Your task to perform on an android device: Open the stopwatch Image 0: 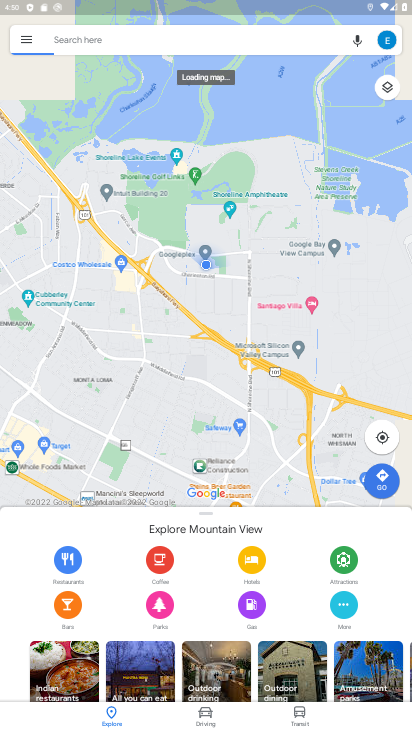
Step 0: press home button
Your task to perform on an android device: Open the stopwatch Image 1: 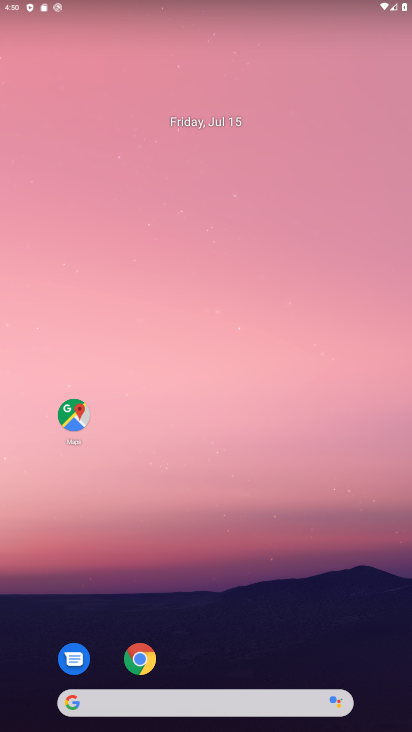
Step 1: drag from (164, 680) to (229, 110)
Your task to perform on an android device: Open the stopwatch Image 2: 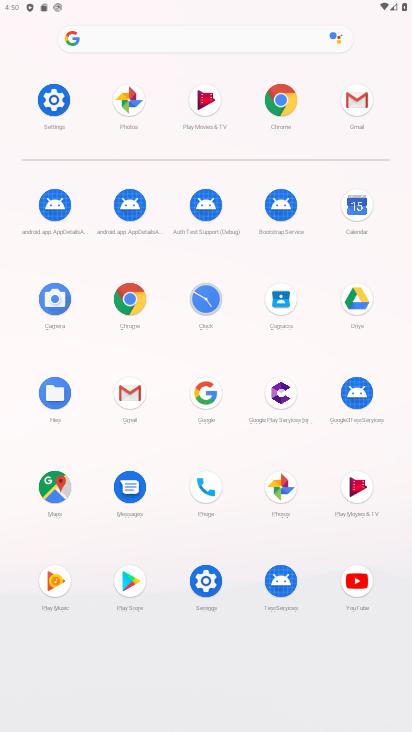
Step 2: click (193, 280)
Your task to perform on an android device: Open the stopwatch Image 3: 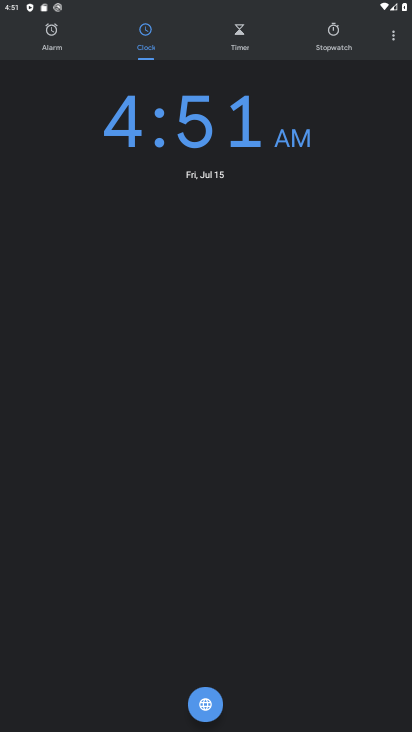
Step 3: click (332, 54)
Your task to perform on an android device: Open the stopwatch Image 4: 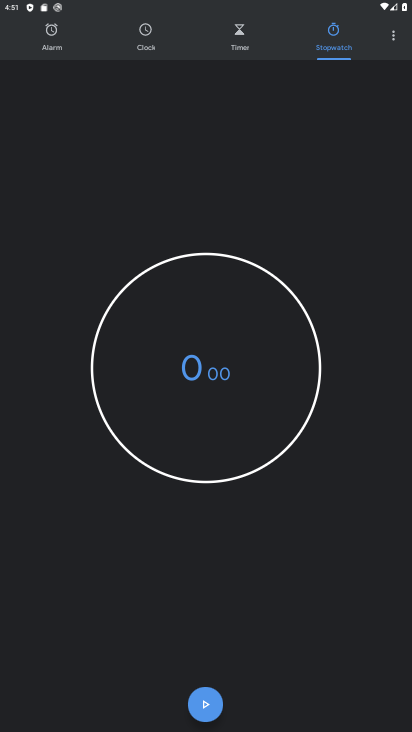
Step 4: task complete